Your task to perform on an android device: Go to accessibility settings Image 0: 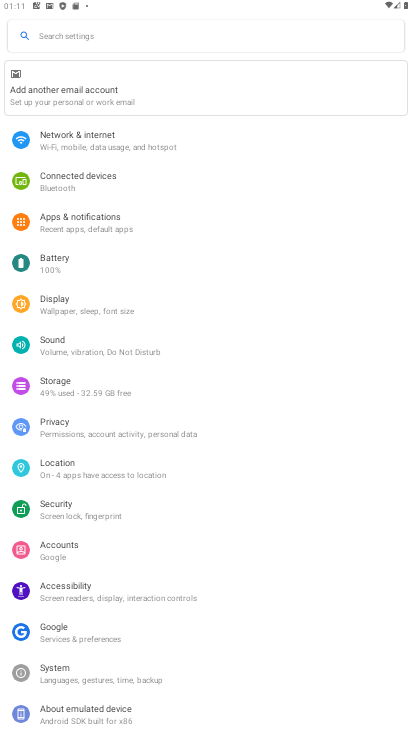
Step 0: click (96, 593)
Your task to perform on an android device: Go to accessibility settings Image 1: 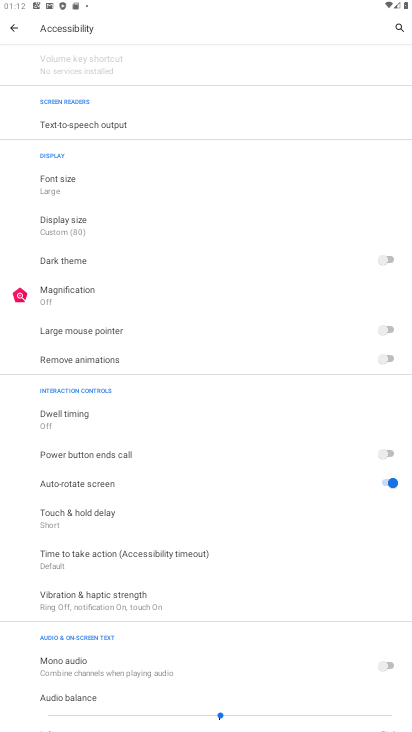
Step 1: task complete